Your task to perform on an android device: turn off location history Image 0: 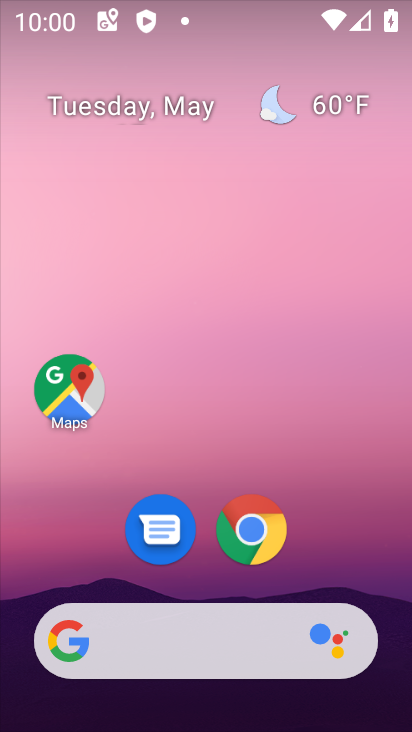
Step 0: drag from (197, 600) to (232, 351)
Your task to perform on an android device: turn off location history Image 1: 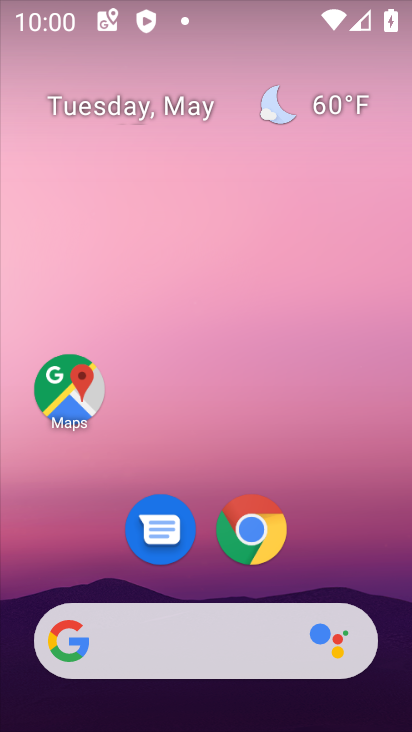
Step 1: drag from (174, 571) to (281, 168)
Your task to perform on an android device: turn off location history Image 2: 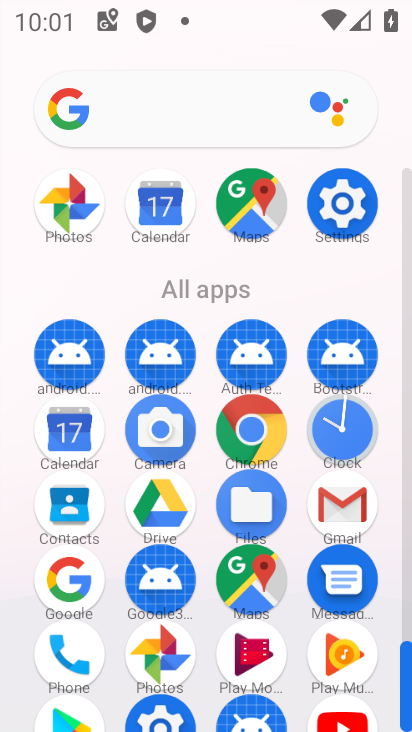
Step 2: click (357, 200)
Your task to perform on an android device: turn off location history Image 3: 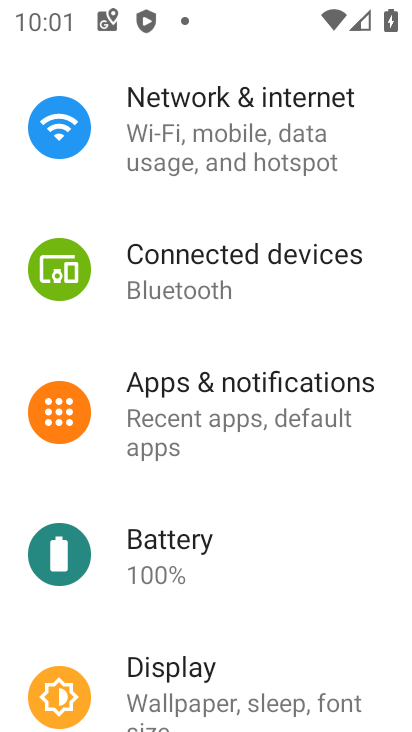
Step 3: drag from (212, 613) to (249, 437)
Your task to perform on an android device: turn off location history Image 4: 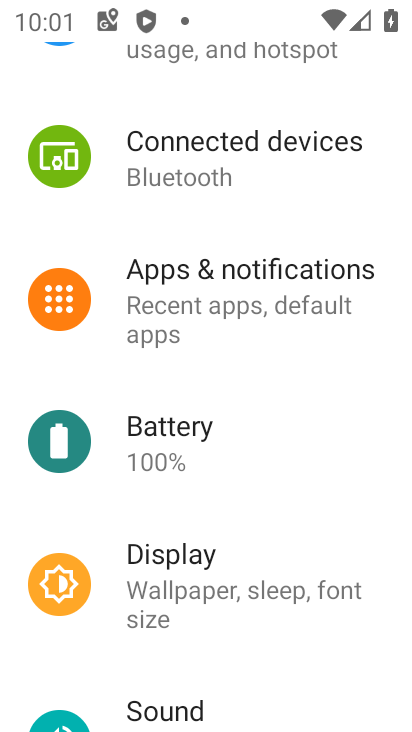
Step 4: drag from (194, 697) to (235, 404)
Your task to perform on an android device: turn off location history Image 5: 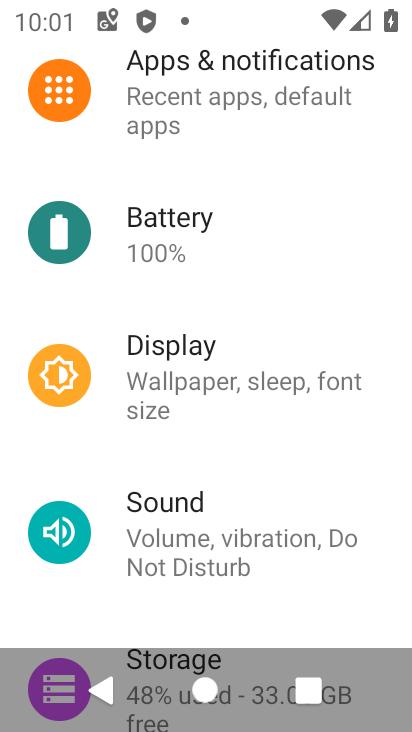
Step 5: drag from (221, 614) to (271, 383)
Your task to perform on an android device: turn off location history Image 6: 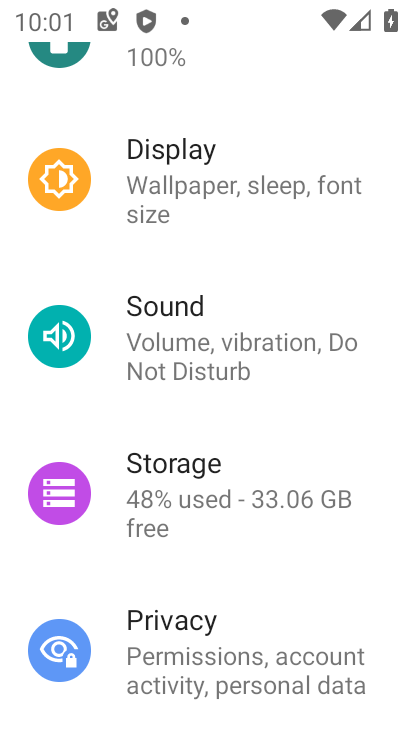
Step 6: drag from (193, 628) to (237, 352)
Your task to perform on an android device: turn off location history Image 7: 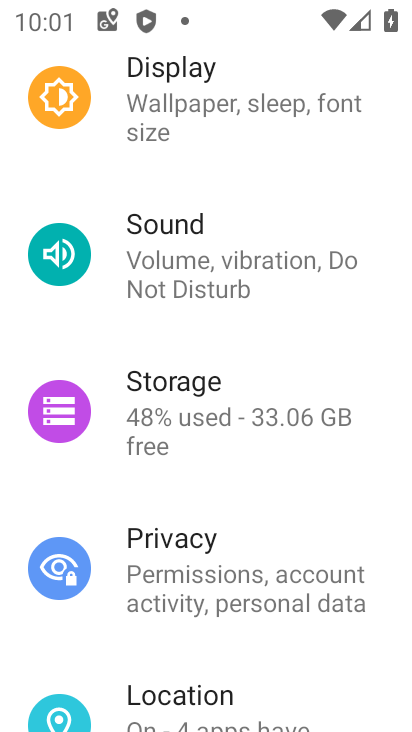
Step 7: click (193, 708)
Your task to perform on an android device: turn off location history Image 8: 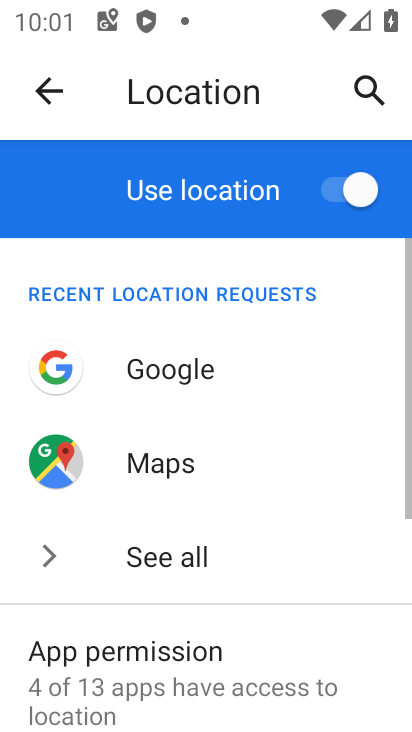
Step 8: drag from (188, 712) to (249, 418)
Your task to perform on an android device: turn off location history Image 9: 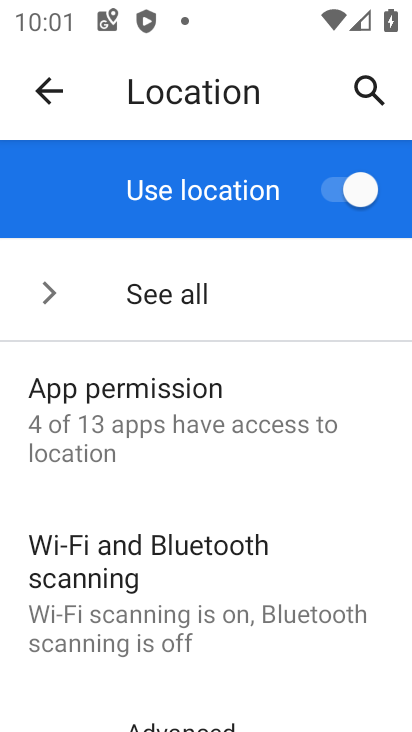
Step 9: drag from (230, 671) to (243, 453)
Your task to perform on an android device: turn off location history Image 10: 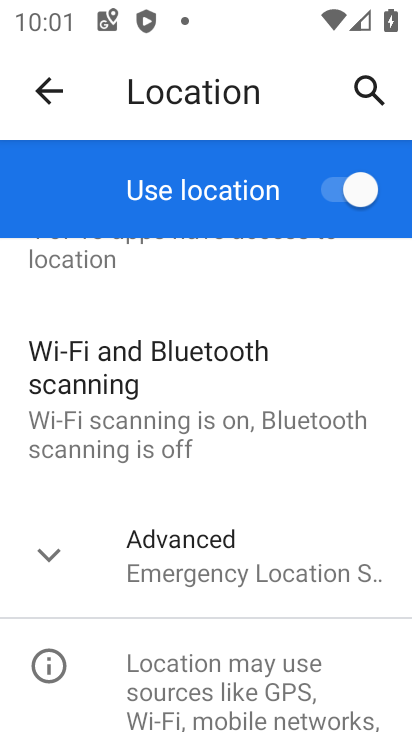
Step 10: click (200, 554)
Your task to perform on an android device: turn off location history Image 11: 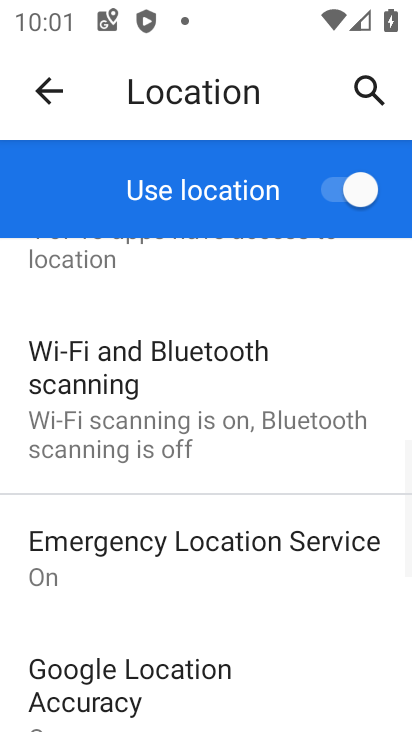
Step 11: drag from (235, 670) to (232, 451)
Your task to perform on an android device: turn off location history Image 12: 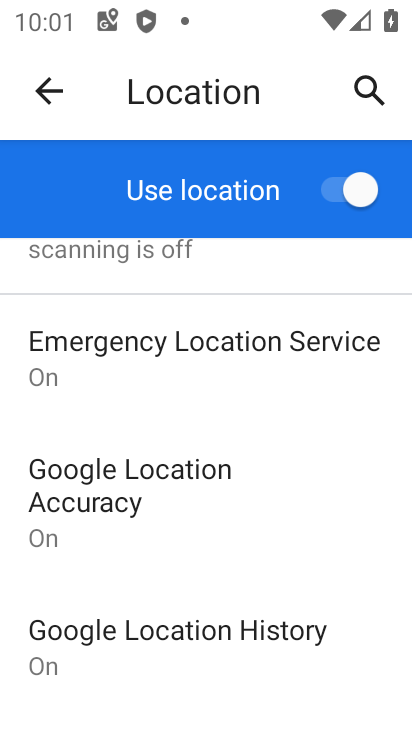
Step 12: drag from (229, 672) to (252, 461)
Your task to perform on an android device: turn off location history Image 13: 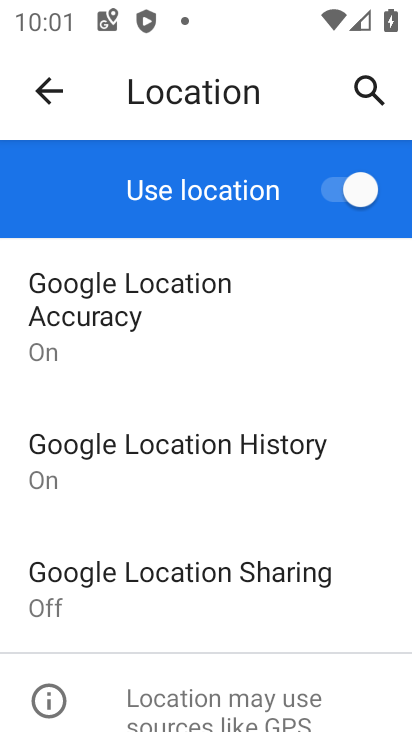
Step 13: click (193, 634)
Your task to perform on an android device: turn off location history Image 14: 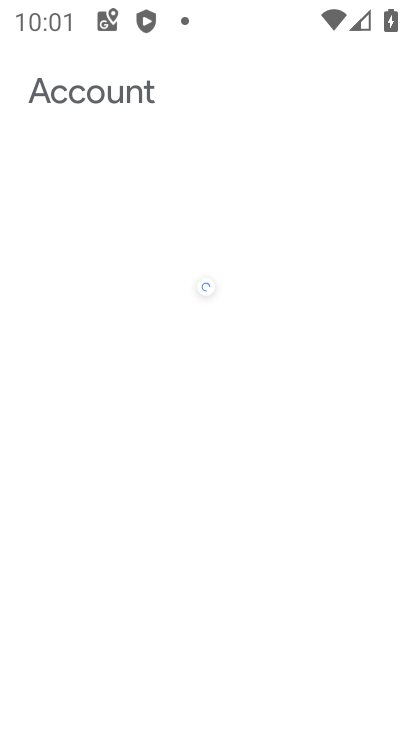
Step 14: click (48, 81)
Your task to perform on an android device: turn off location history Image 15: 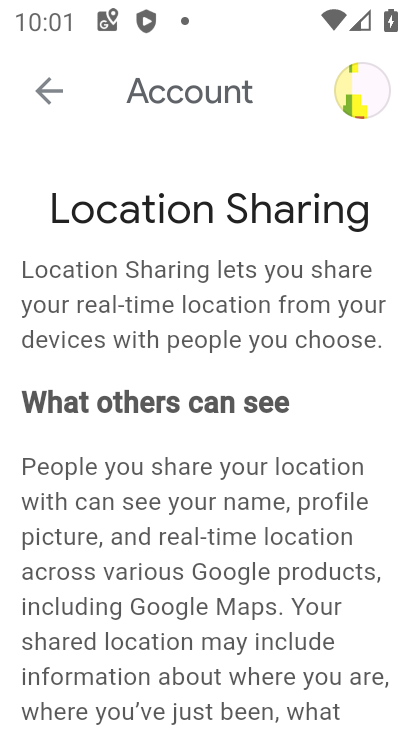
Step 15: click (45, 82)
Your task to perform on an android device: turn off location history Image 16: 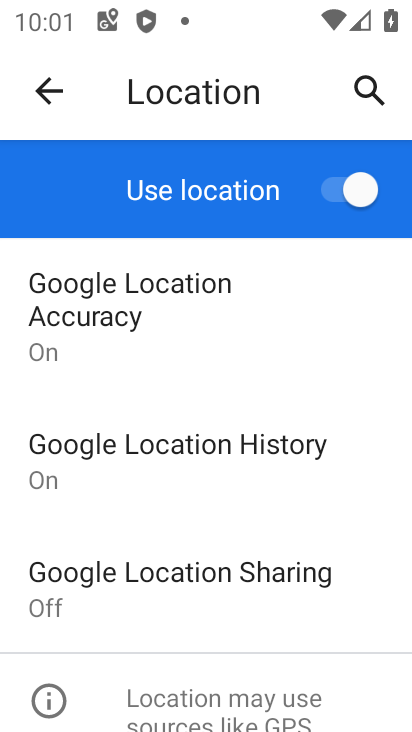
Step 16: click (143, 445)
Your task to perform on an android device: turn off location history Image 17: 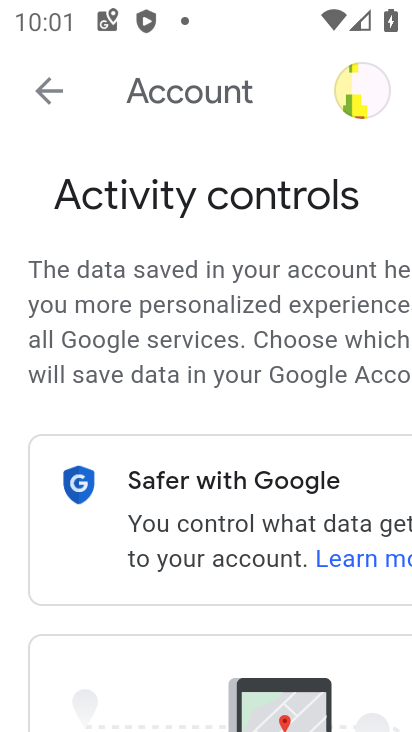
Step 17: drag from (119, 696) to (165, 434)
Your task to perform on an android device: turn off location history Image 18: 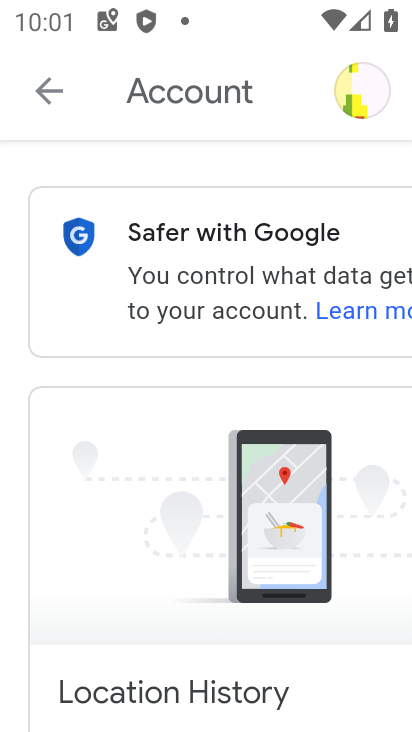
Step 18: drag from (201, 693) to (190, 430)
Your task to perform on an android device: turn off location history Image 19: 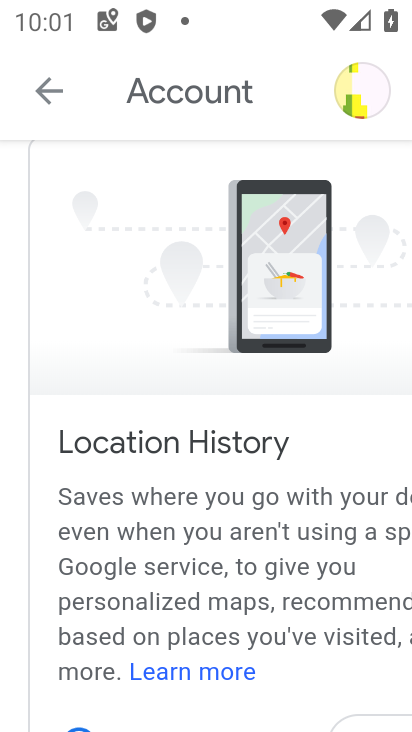
Step 19: drag from (223, 687) to (222, 467)
Your task to perform on an android device: turn off location history Image 20: 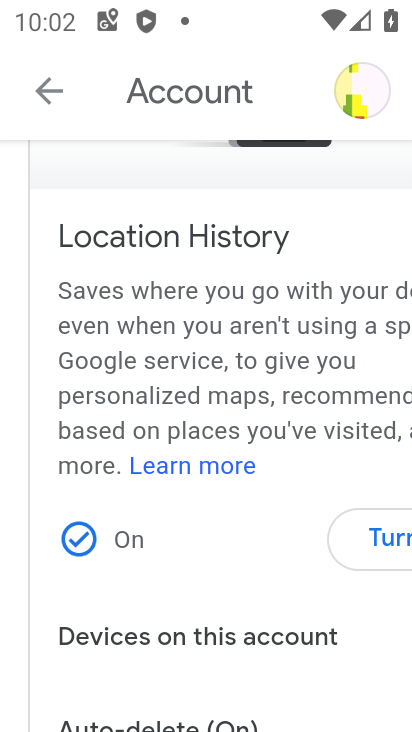
Step 20: click (369, 517)
Your task to perform on an android device: turn off location history Image 21: 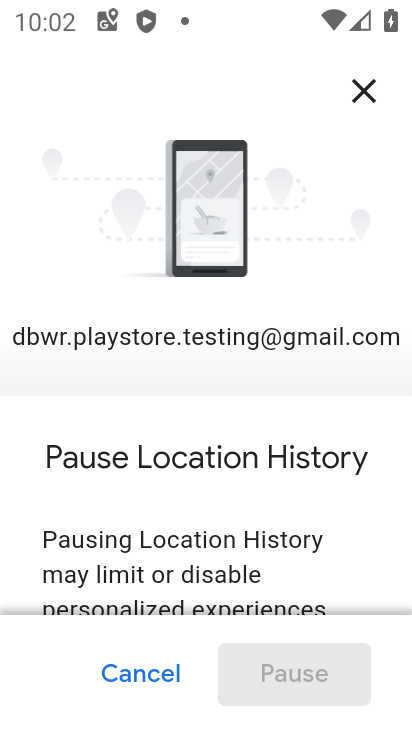
Step 21: drag from (284, 578) to (316, 342)
Your task to perform on an android device: turn off location history Image 22: 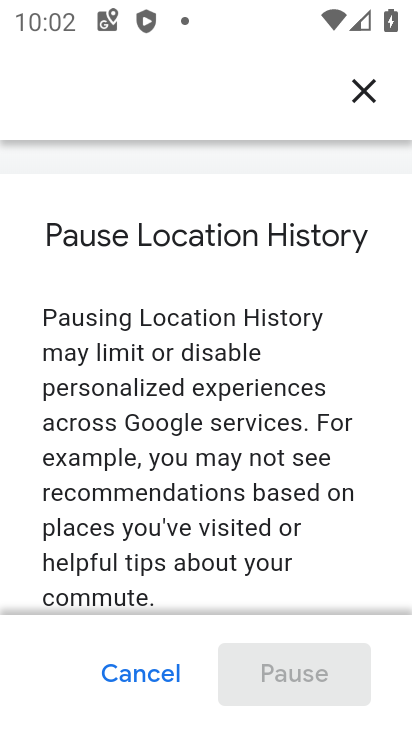
Step 22: click (311, 323)
Your task to perform on an android device: turn off location history Image 23: 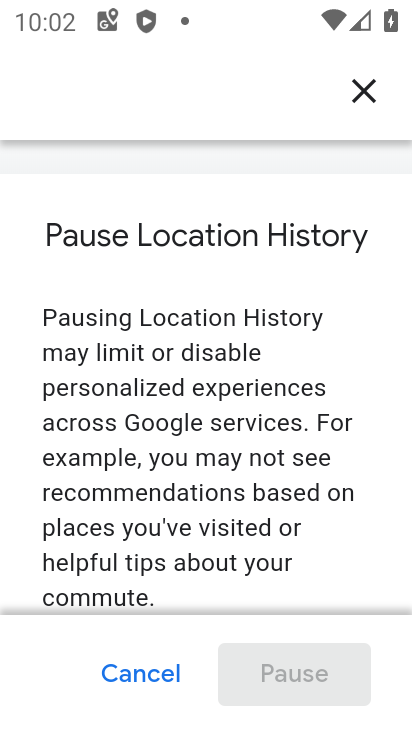
Step 23: drag from (251, 584) to (255, 240)
Your task to perform on an android device: turn off location history Image 24: 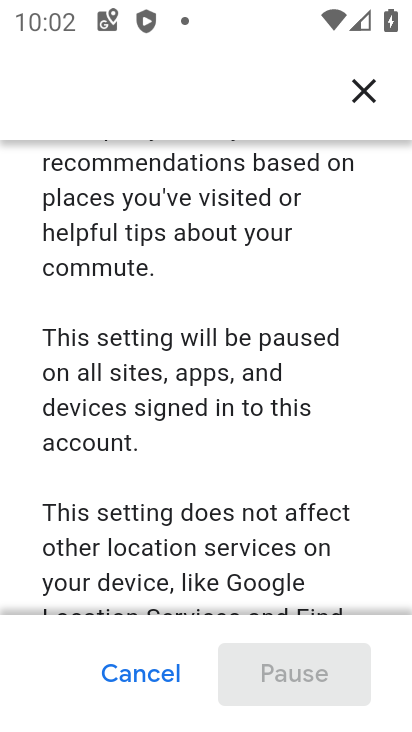
Step 24: drag from (245, 572) to (245, 313)
Your task to perform on an android device: turn off location history Image 25: 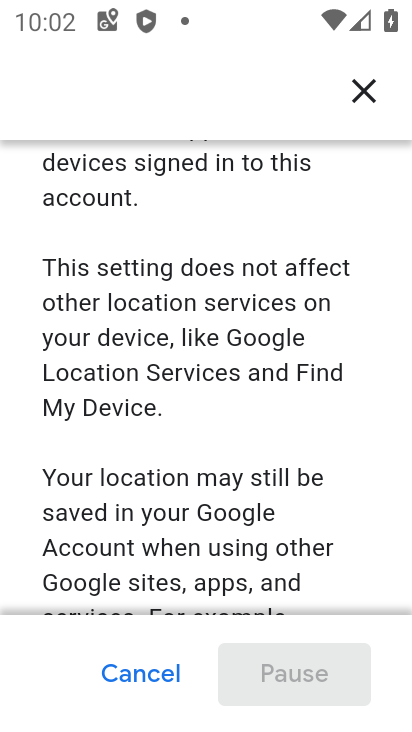
Step 25: drag from (197, 578) to (231, 334)
Your task to perform on an android device: turn off location history Image 26: 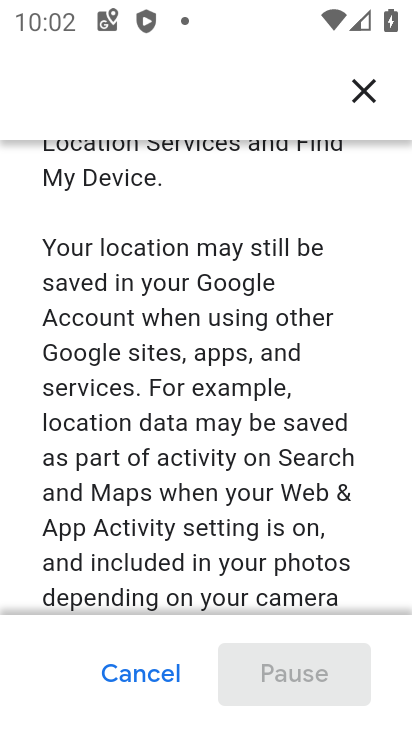
Step 26: drag from (254, 580) to (282, 306)
Your task to perform on an android device: turn off location history Image 27: 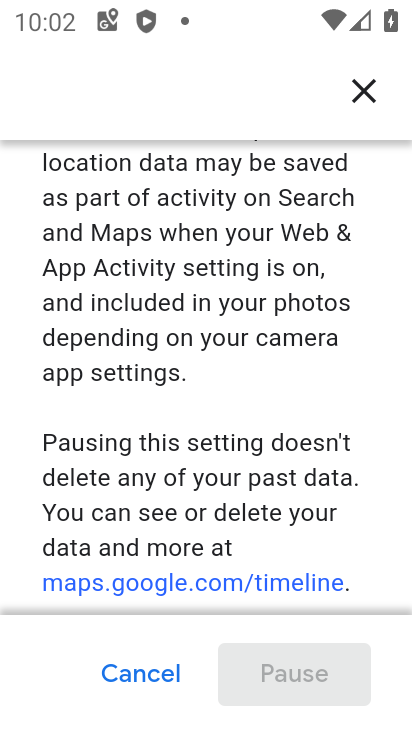
Step 27: drag from (240, 596) to (282, 296)
Your task to perform on an android device: turn off location history Image 28: 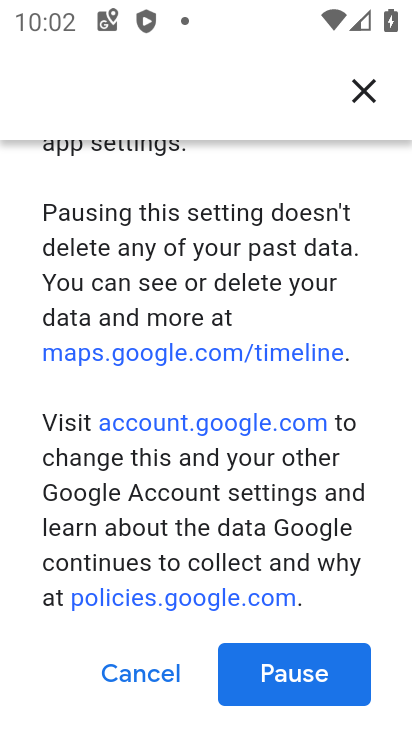
Step 28: click (292, 665)
Your task to perform on an android device: turn off location history Image 29: 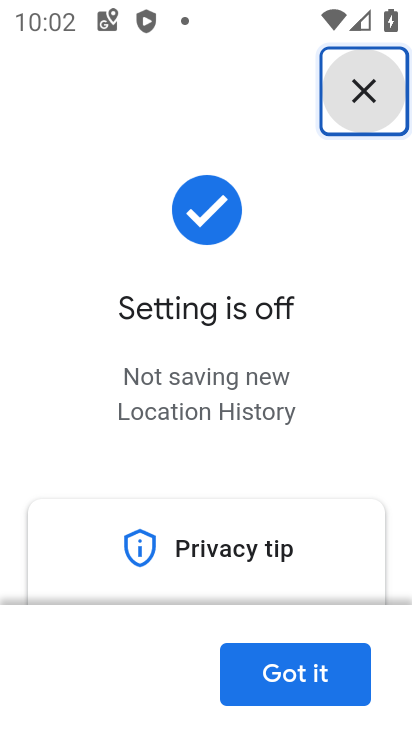
Step 29: click (306, 676)
Your task to perform on an android device: turn off location history Image 30: 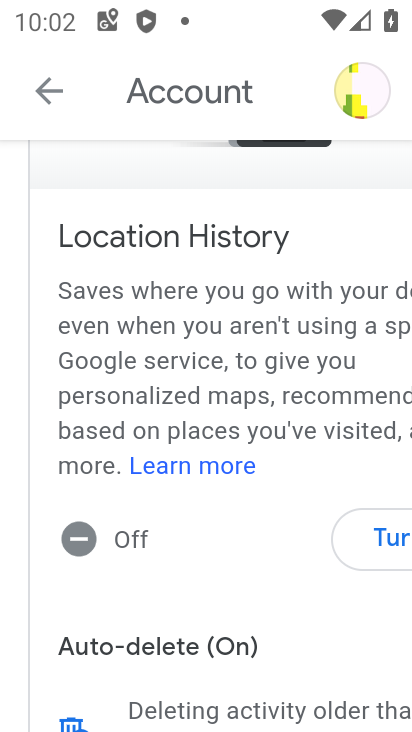
Step 30: task complete